Your task to perform on an android device: Go to Amazon Image 0: 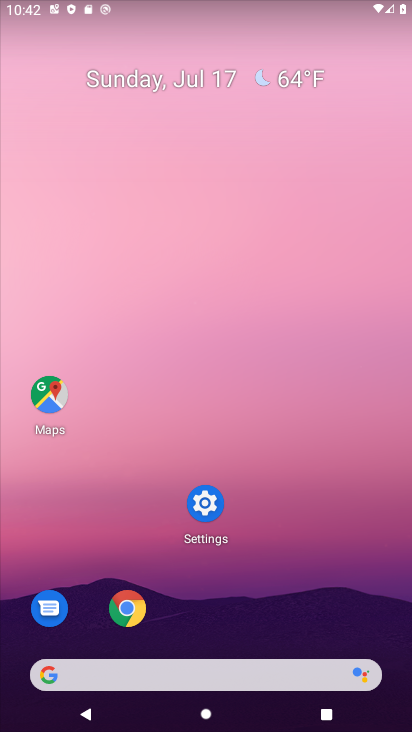
Step 0: click (139, 599)
Your task to perform on an android device: Go to Amazon Image 1: 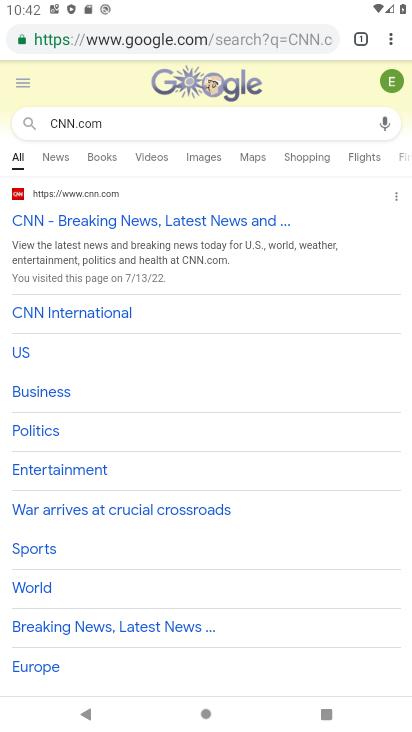
Step 1: click (317, 39)
Your task to perform on an android device: Go to Amazon Image 2: 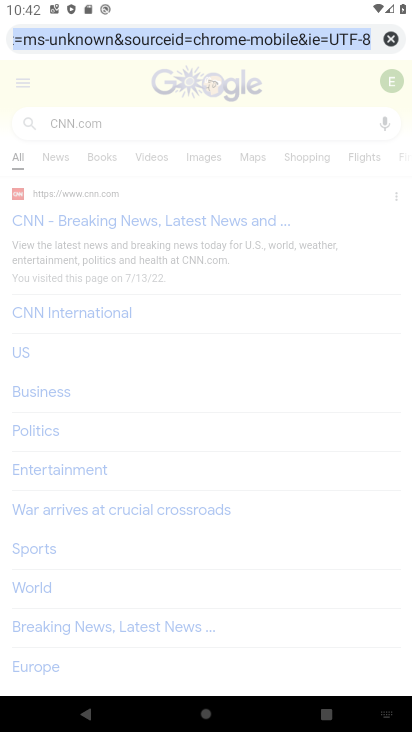
Step 2: click (386, 34)
Your task to perform on an android device: Go to Amazon Image 3: 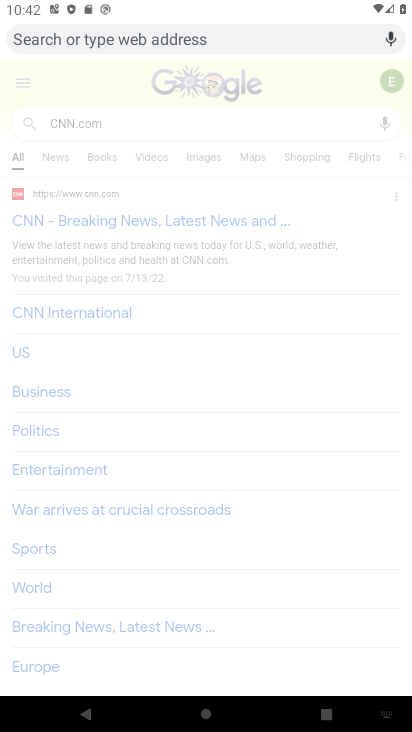
Step 3: type "Amazon"
Your task to perform on an android device: Go to Amazon Image 4: 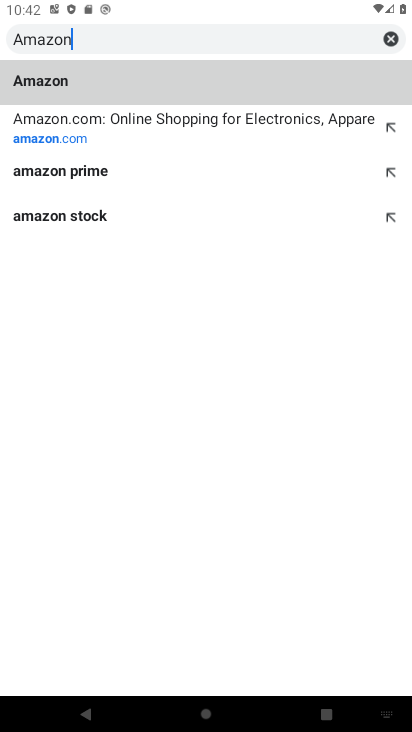
Step 4: click (81, 83)
Your task to perform on an android device: Go to Amazon Image 5: 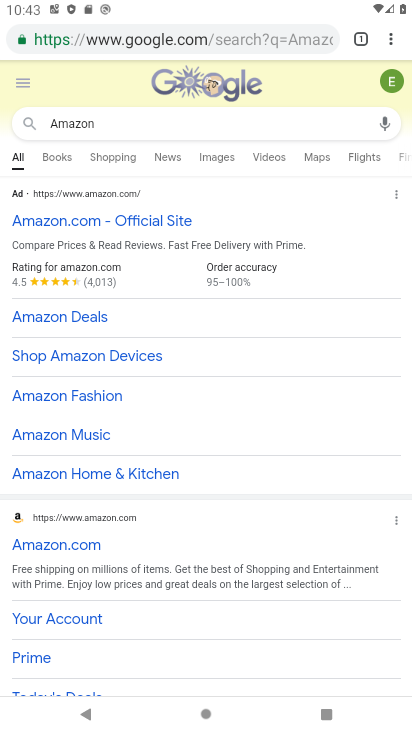
Step 5: task complete